Your task to perform on an android device: open app "Microsoft Authenticator" (install if not already installed) and enter user name: "Cornell@yahoo.com" and password: "bothersome" Image 0: 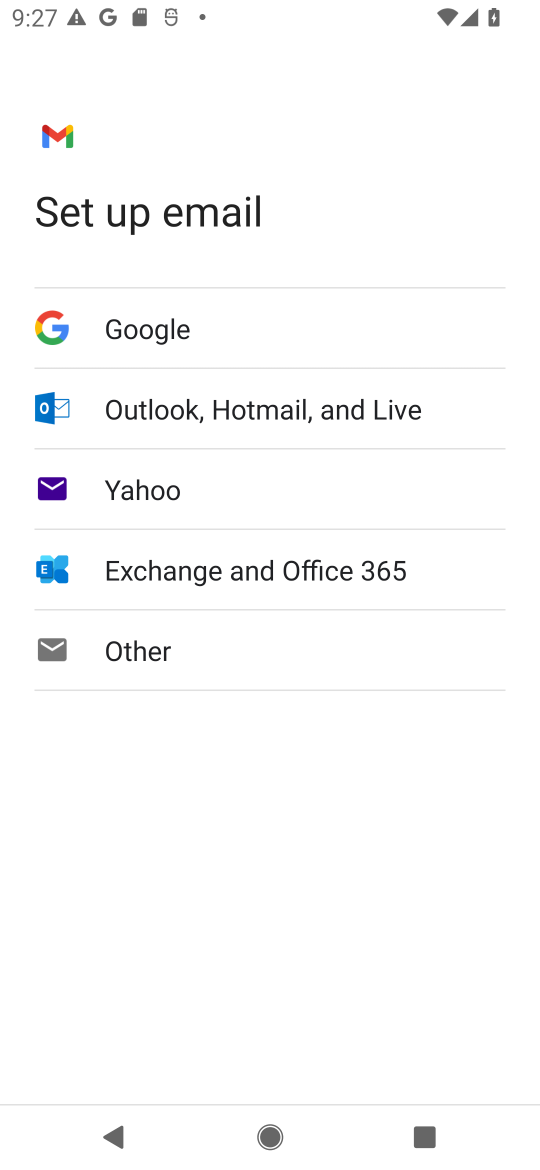
Step 0: press home button
Your task to perform on an android device: open app "Microsoft Authenticator" (install if not already installed) and enter user name: "Cornell@yahoo.com" and password: "bothersome" Image 1: 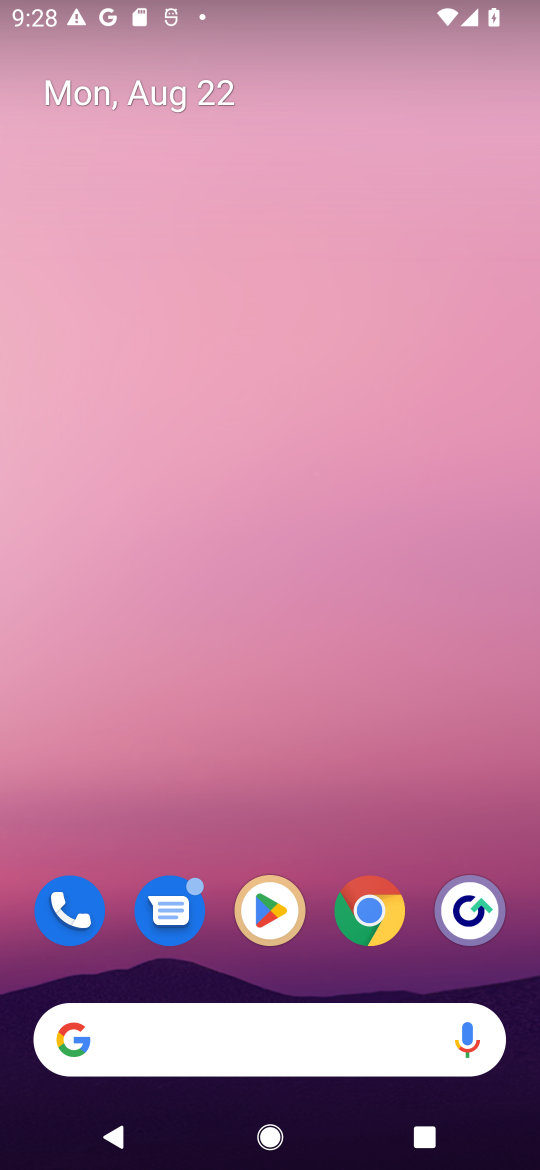
Step 1: click (266, 917)
Your task to perform on an android device: open app "Microsoft Authenticator" (install if not already installed) and enter user name: "Cornell@yahoo.com" and password: "bothersome" Image 2: 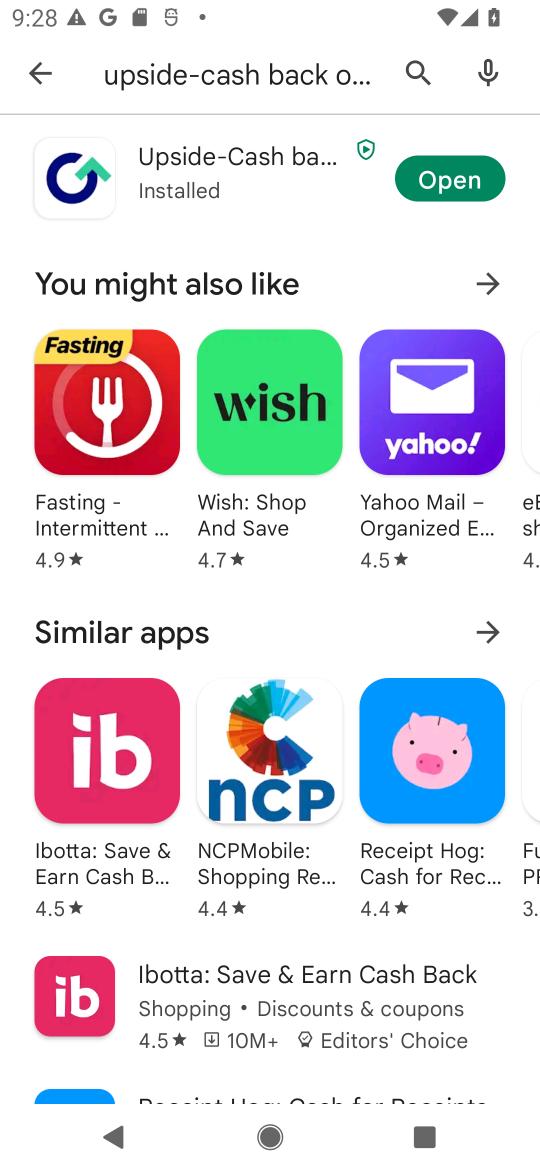
Step 2: click (435, 65)
Your task to perform on an android device: open app "Microsoft Authenticator" (install if not already installed) and enter user name: "Cornell@yahoo.com" and password: "bothersome" Image 3: 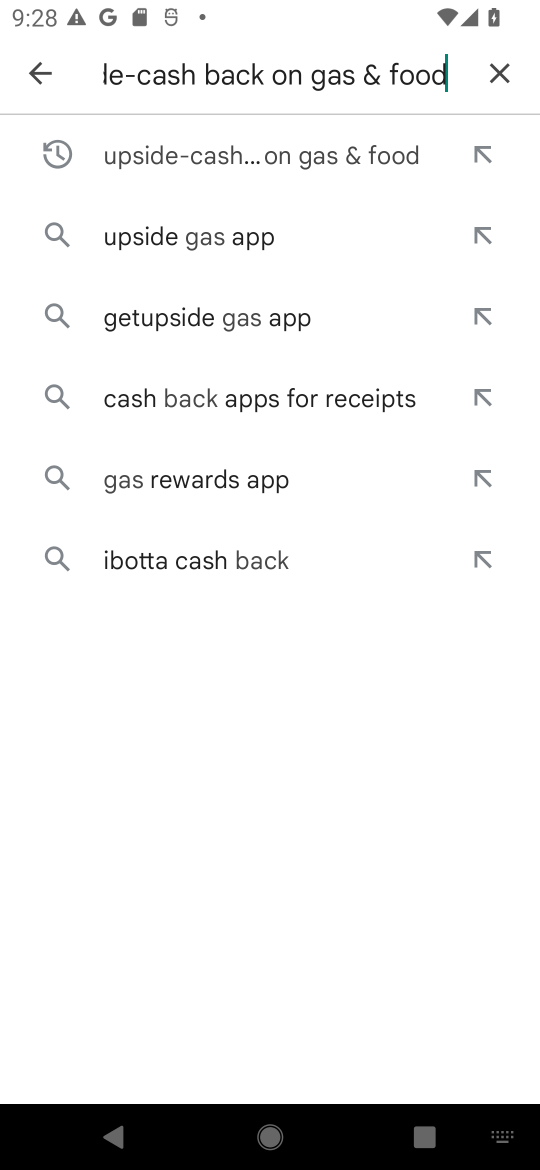
Step 3: click (493, 65)
Your task to perform on an android device: open app "Microsoft Authenticator" (install if not already installed) and enter user name: "Cornell@yahoo.com" and password: "bothersome" Image 4: 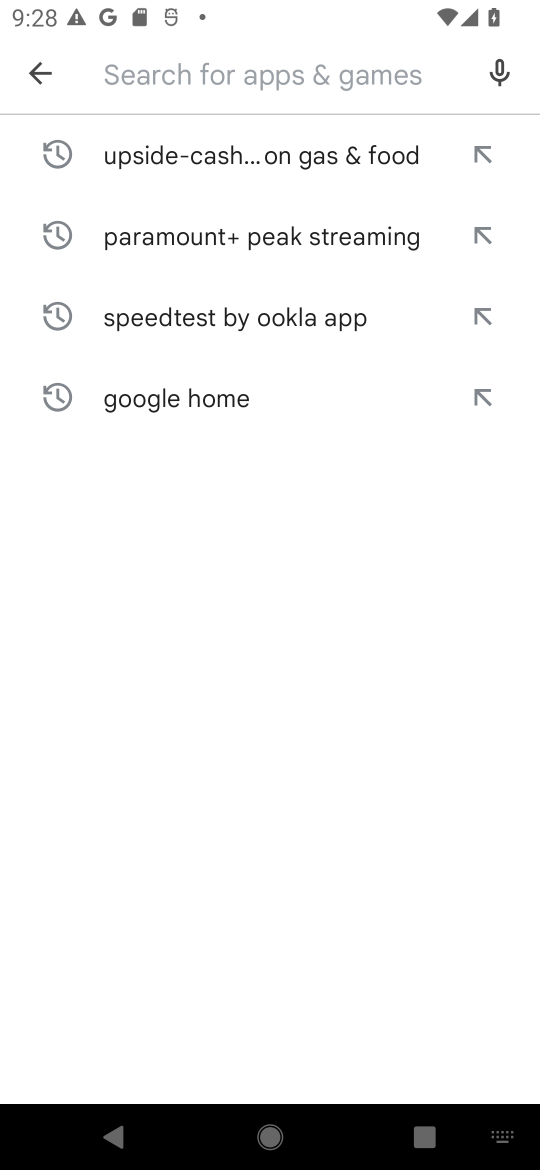
Step 4: type "Microsoft Authenticator"
Your task to perform on an android device: open app "Microsoft Authenticator" (install if not already installed) and enter user name: "Cornell@yahoo.com" and password: "bothersome" Image 5: 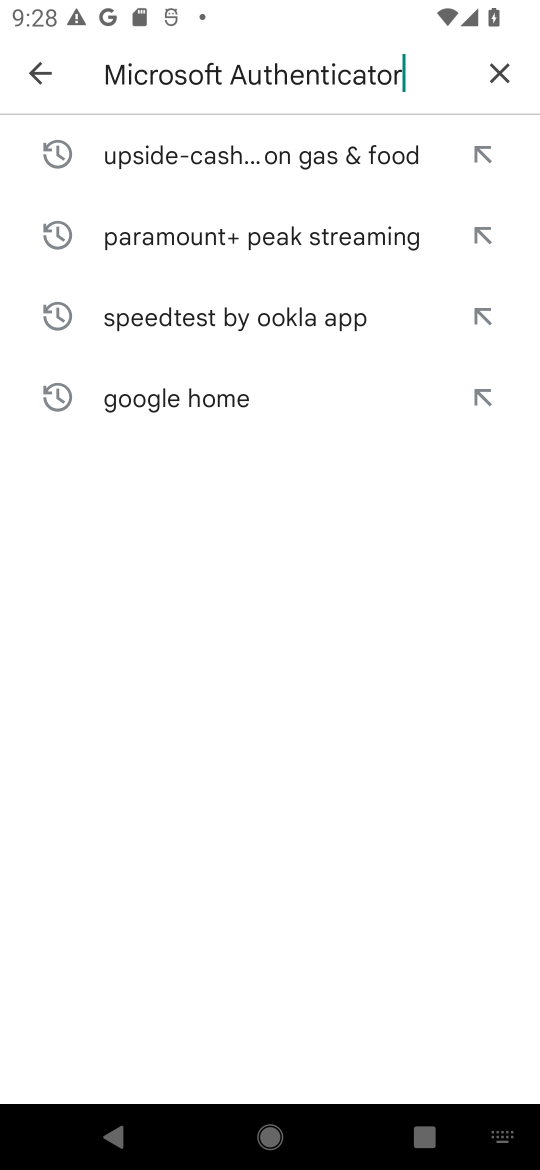
Step 5: type ""
Your task to perform on an android device: open app "Microsoft Authenticator" (install if not already installed) and enter user name: "Cornell@yahoo.com" and password: "bothersome" Image 6: 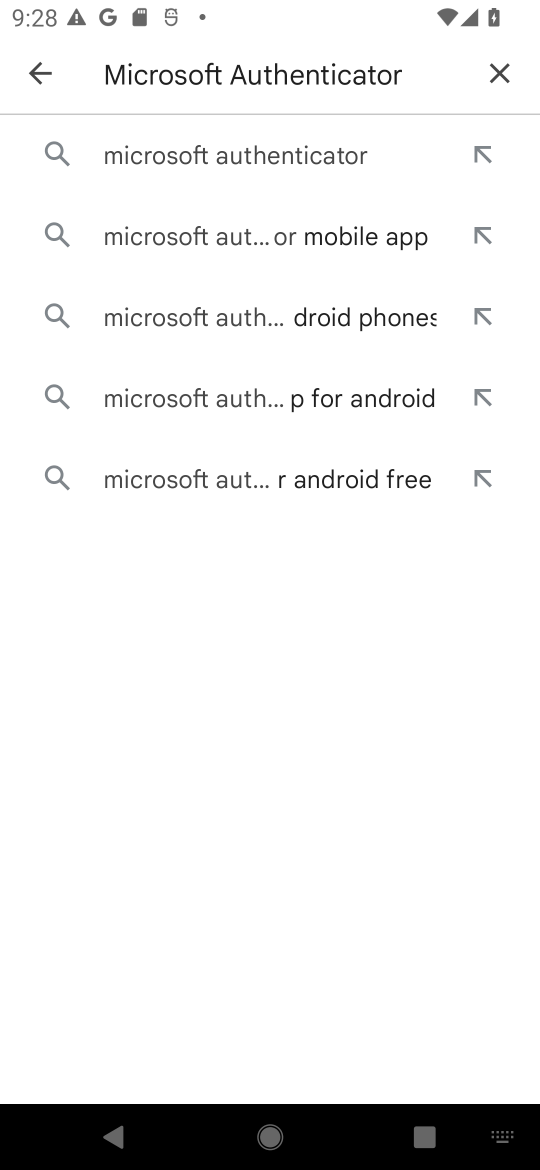
Step 6: click (247, 169)
Your task to perform on an android device: open app "Microsoft Authenticator" (install if not already installed) and enter user name: "Cornell@yahoo.com" and password: "bothersome" Image 7: 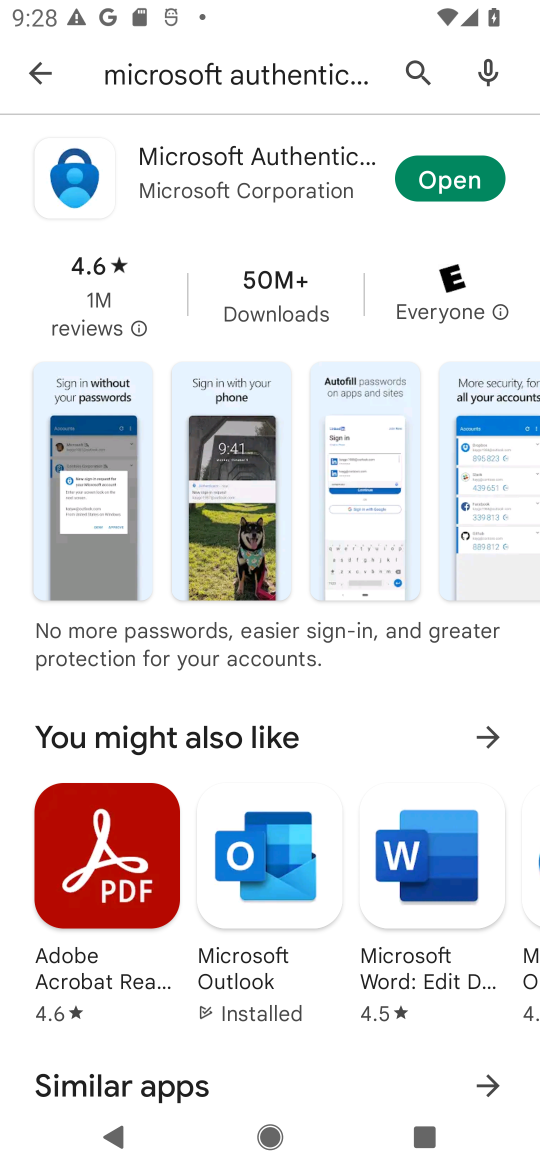
Step 7: click (475, 169)
Your task to perform on an android device: open app "Microsoft Authenticator" (install if not already installed) and enter user name: "Cornell@yahoo.com" and password: "bothersome" Image 8: 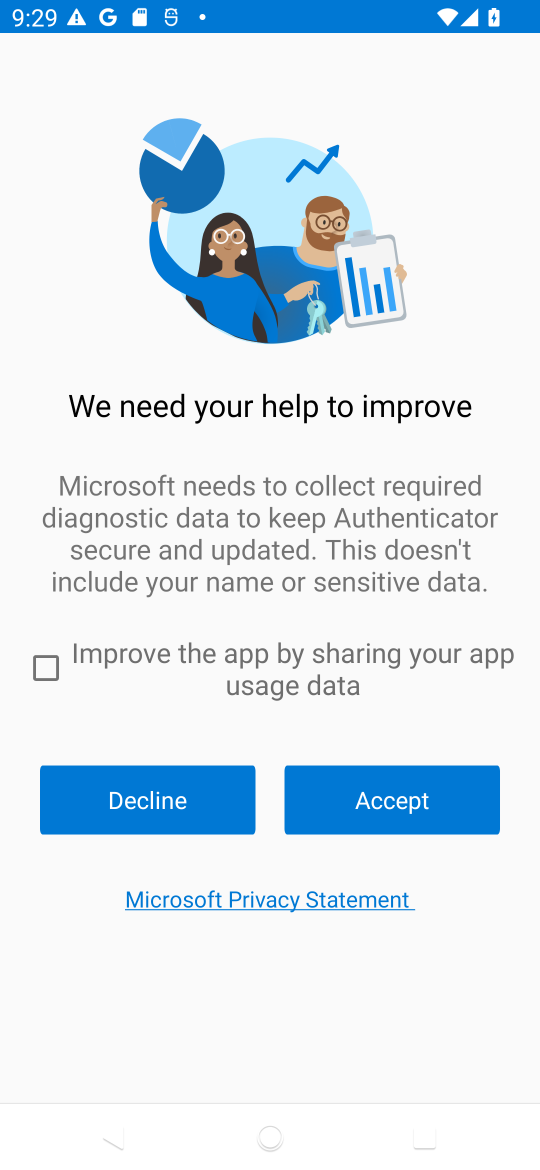
Step 8: task complete